Your task to perform on an android device: toggle improve location accuracy Image 0: 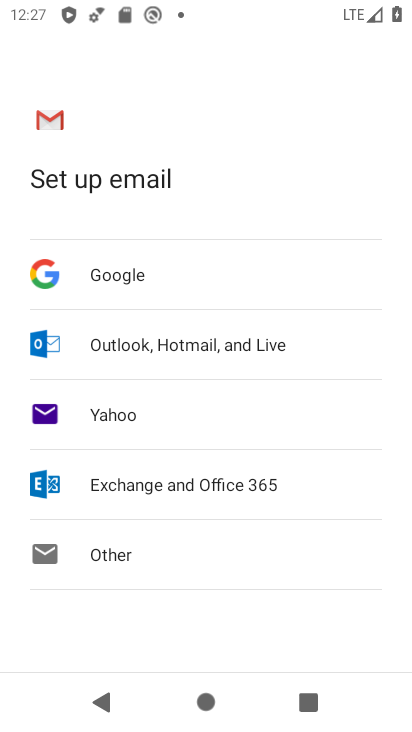
Step 0: press home button
Your task to perform on an android device: toggle improve location accuracy Image 1: 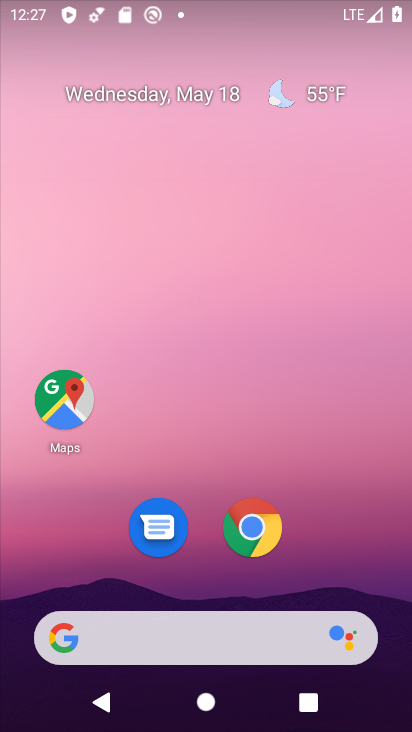
Step 1: drag from (316, 467) to (247, 81)
Your task to perform on an android device: toggle improve location accuracy Image 2: 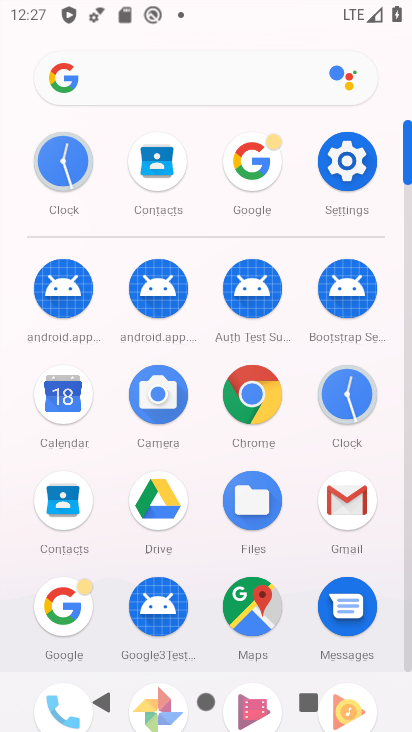
Step 2: click (368, 160)
Your task to perform on an android device: toggle improve location accuracy Image 3: 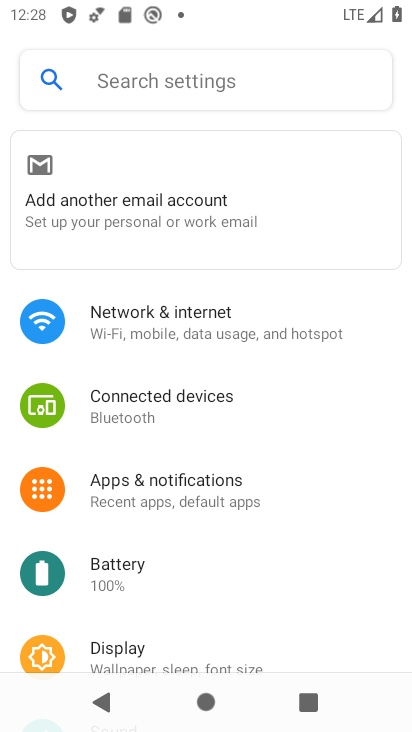
Step 3: drag from (256, 575) to (243, 199)
Your task to perform on an android device: toggle improve location accuracy Image 4: 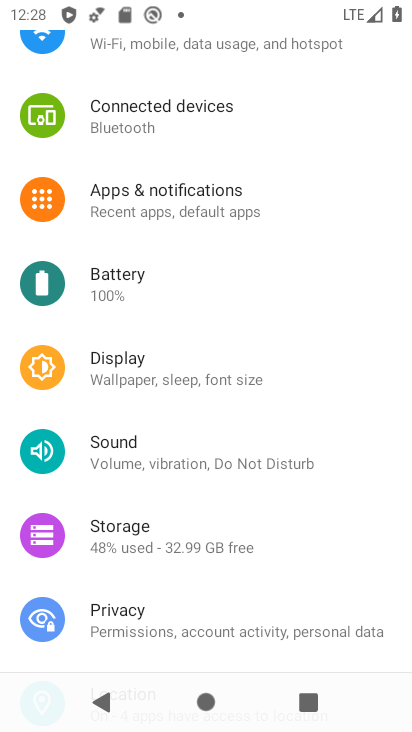
Step 4: drag from (175, 562) to (195, 401)
Your task to perform on an android device: toggle improve location accuracy Image 5: 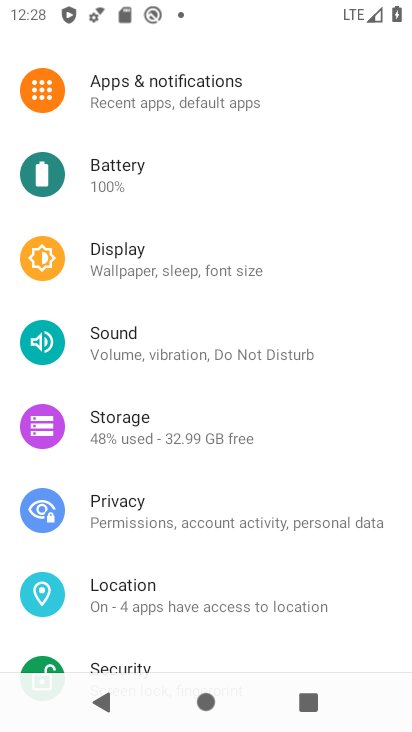
Step 5: click (189, 582)
Your task to perform on an android device: toggle improve location accuracy Image 6: 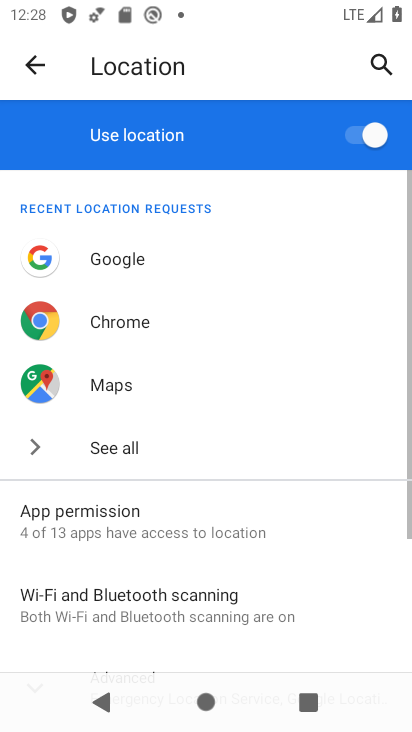
Step 6: drag from (213, 563) to (208, 188)
Your task to perform on an android device: toggle improve location accuracy Image 7: 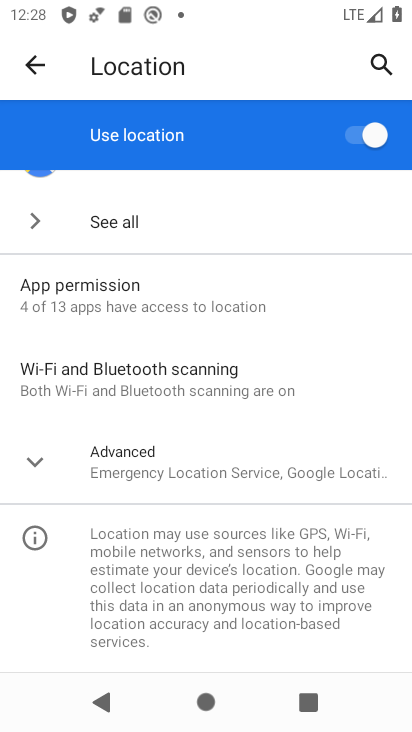
Step 7: click (210, 465)
Your task to perform on an android device: toggle improve location accuracy Image 8: 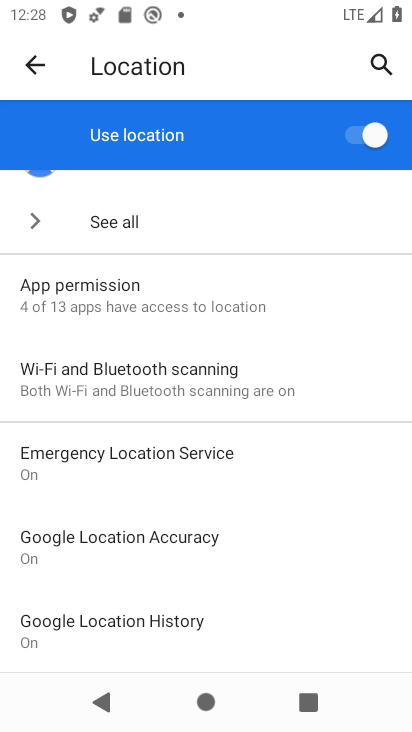
Step 8: click (245, 534)
Your task to perform on an android device: toggle improve location accuracy Image 9: 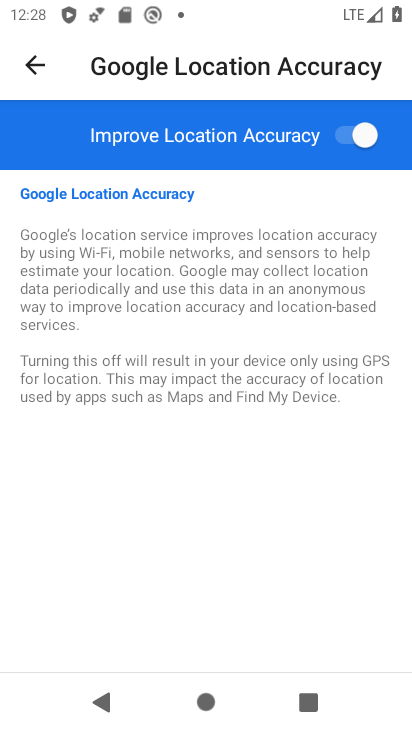
Step 9: click (342, 144)
Your task to perform on an android device: toggle improve location accuracy Image 10: 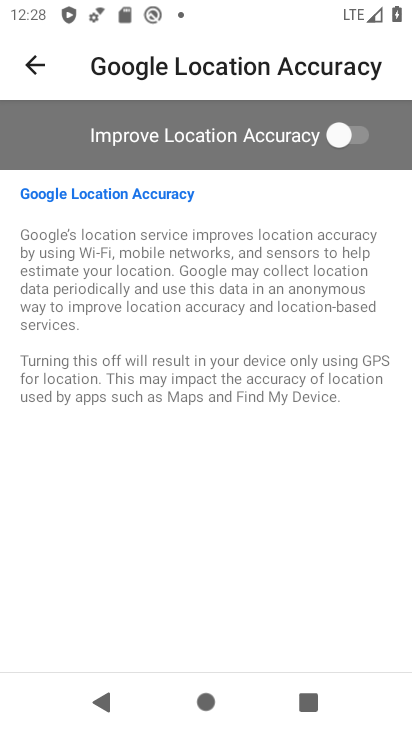
Step 10: task complete